Your task to perform on an android device: What's the weather today? Image 0: 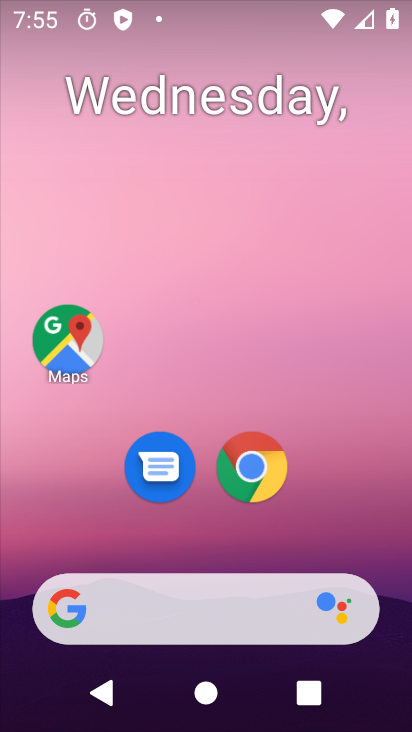
Step 0: drag from (242, 237) to (400, 208)
Your task to perform on an android device: What's the weather today? Image 1: 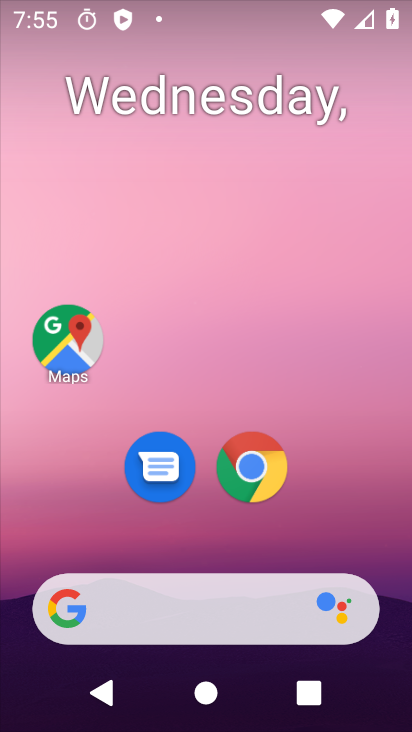
Step 1: task complete